Your task to perform on an android device: Go to Yahoo.com Image 0: 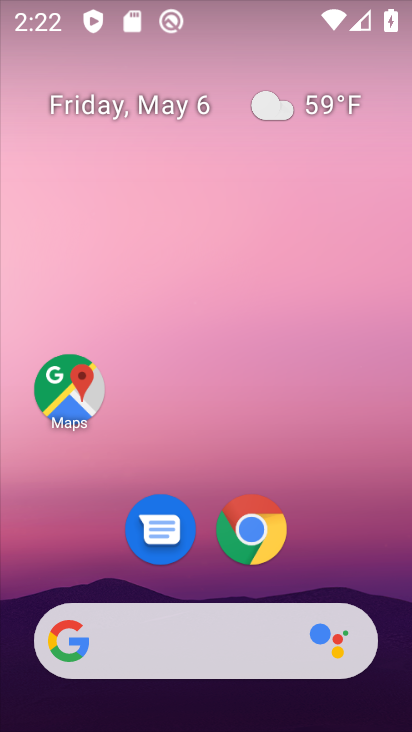
Step 0: click (320, 101)
Your task to perform on an android device: Go to Yahoo.com Image 1: 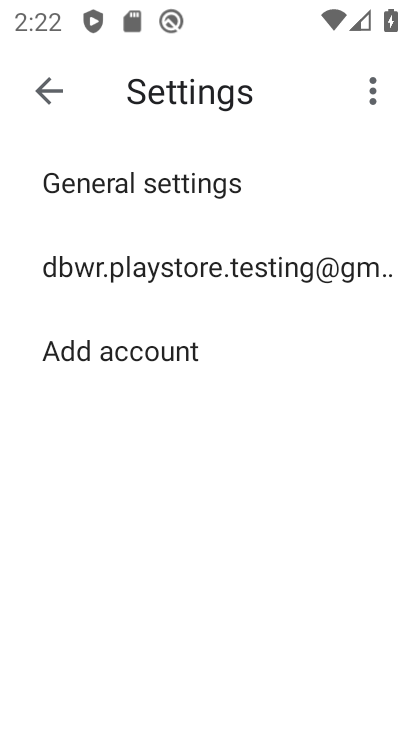
Step 1: click (53, 74)
Your task to perform on an android device: Go to Yahoo.com Image 2: 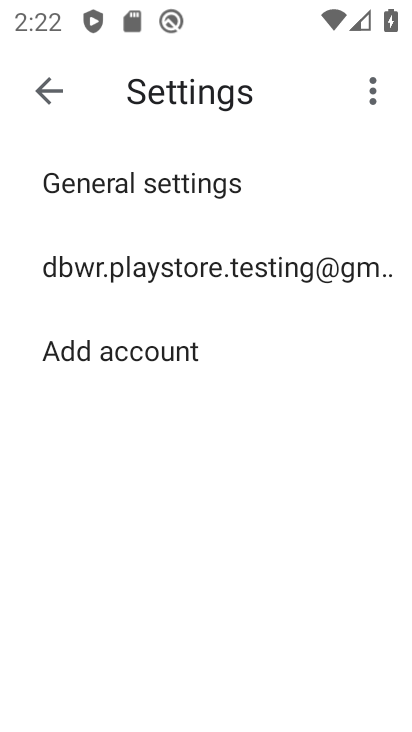
Step 2: click (53, 73)
Your task to perform on an android device: Go to Yahoo.com Image 3: 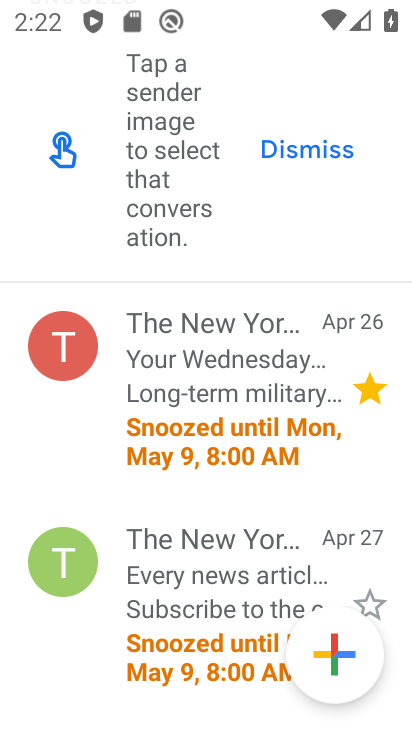
Step 3: press home button
Your task to perform on an android device: Go to Yahoo.com Image 4: 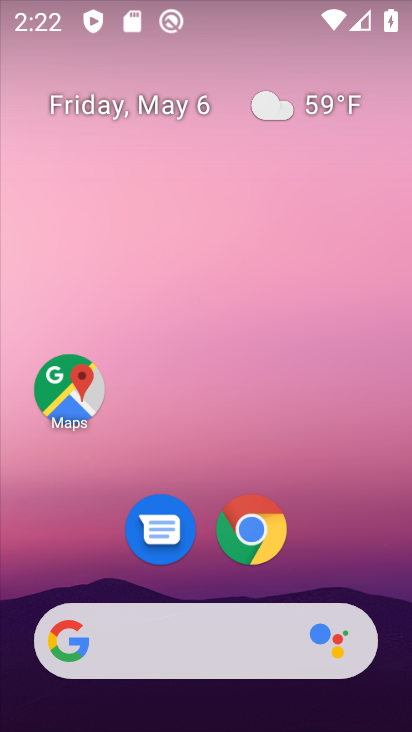
Step 4: click (270, 530)
Your task to perform on an android device: Go to Yahoo.com Image 5: 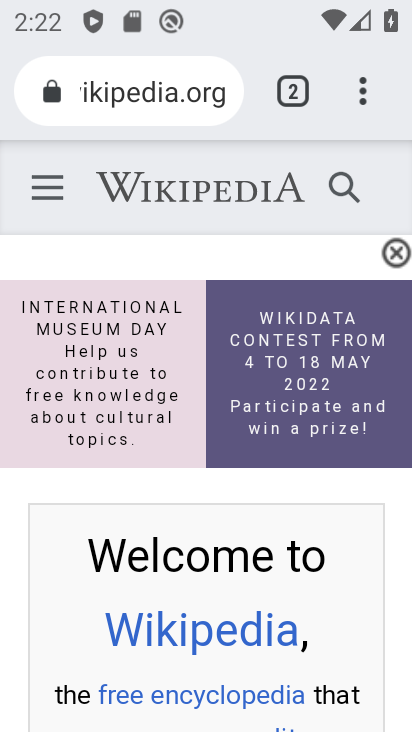
Step 5: click (184, 87)
Your task to perform on an android device: Go to Yahoo.com Image 6: 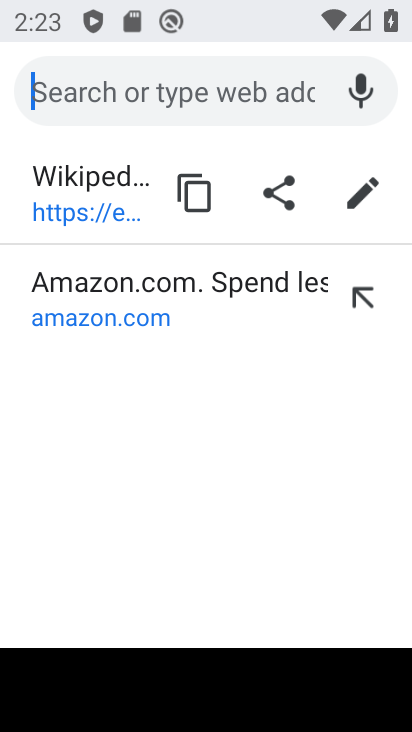
Step 6: type "yahoo.com"
Your task to perform on an android device: Go to Yahoo.com Image 7: 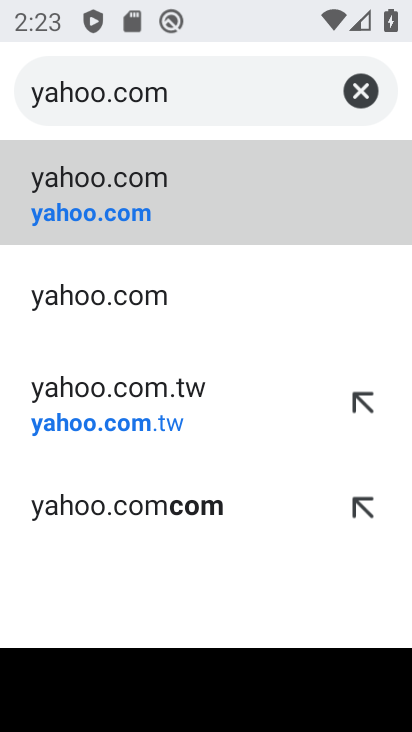
Step 7: click (141, 206)
Your task to perform on an android device: Go to Yahoo.com Image 8: 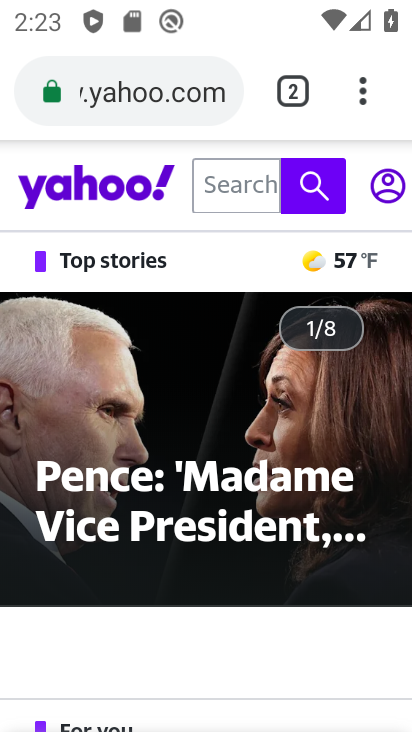
Step 8: task complete